Your task to perform on an android device: search for starred emails in the gmail app Image 0: 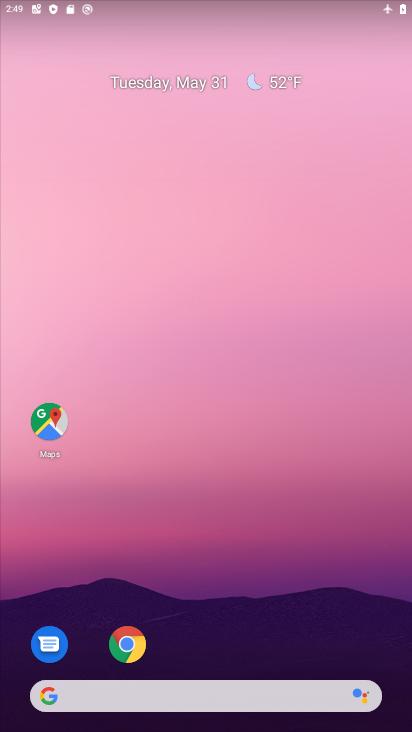
Step 0: drag from (119, 726) to (164, 77)
Your task to perform on an android device: search for starred emails in the gmail app Image 1: 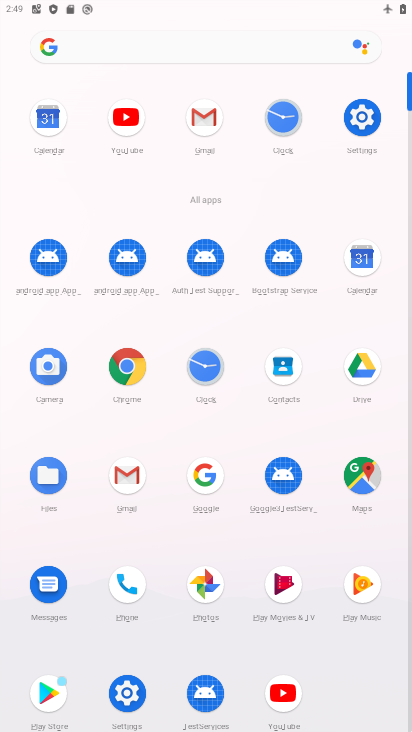
Step 1: click (137, 485)
Your task to perform on an android device: search for starred emails in the gmail app Image 2: 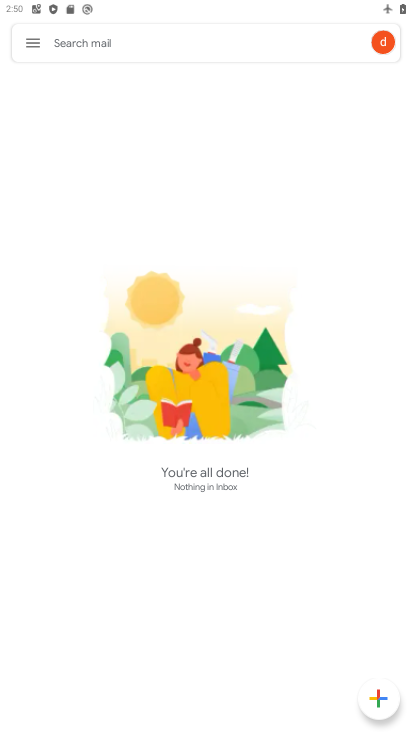
Step 2: click (20, 40)
Your task to perform on an android device: search for starred emails in the gmail app Image 3: 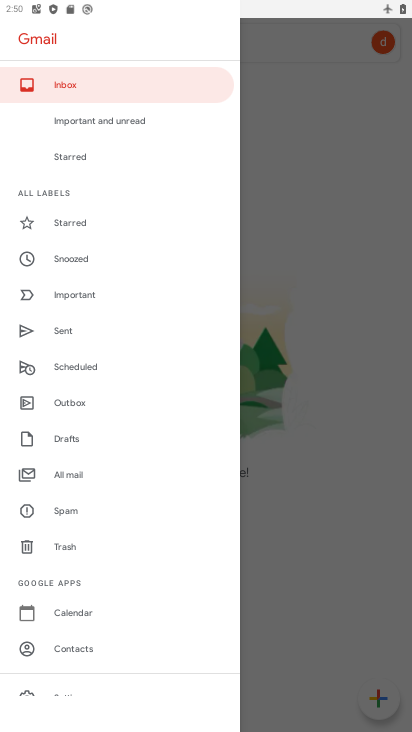
Step 3: click (74, 226)
Your task to perform on an android device: search for starred emails in the gmail app Image 4: 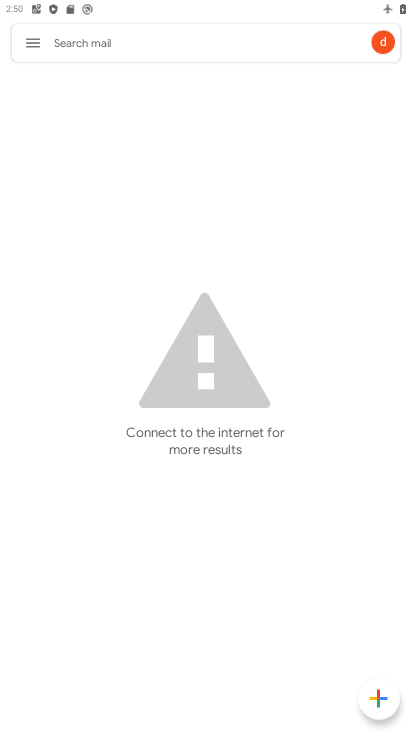
Step 4: task complete